Your task to perform on an android device: Open the calendar app, open the side menu, and click the "Day" option Image 0: 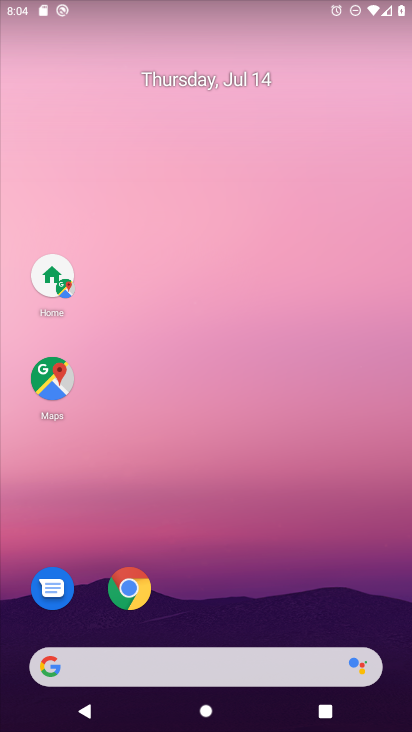
Step 0: drag from (40, 696) to (231, 80)
Your task to perform on an android device: Open the calendar app, open the side menu, and click the "Day" option Image 1: 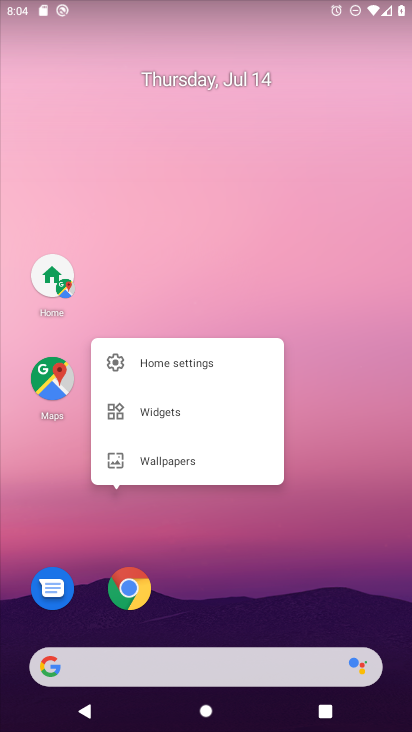
Step 1: drag from (6, 694) to (359, 56)
Your task to perform on an android device: Open the calendar app, open the side menu, and click the "Day" option Image 2: 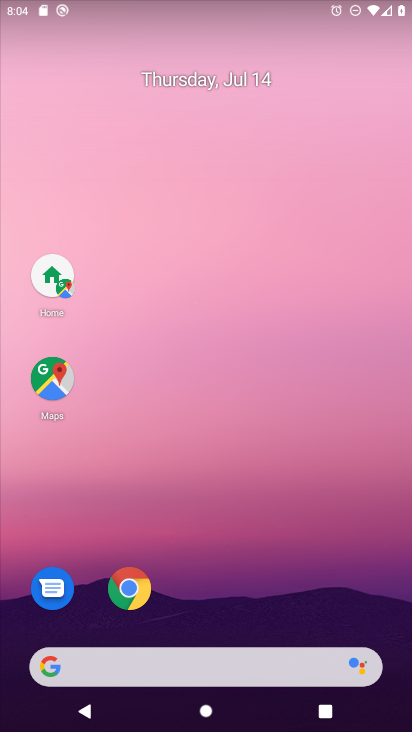
Step 2: drag from (17, 700) to (365, 7)
Your task to perform on an android device: Open the calendar app, open the side menu, and click the "Day" option Image 3: 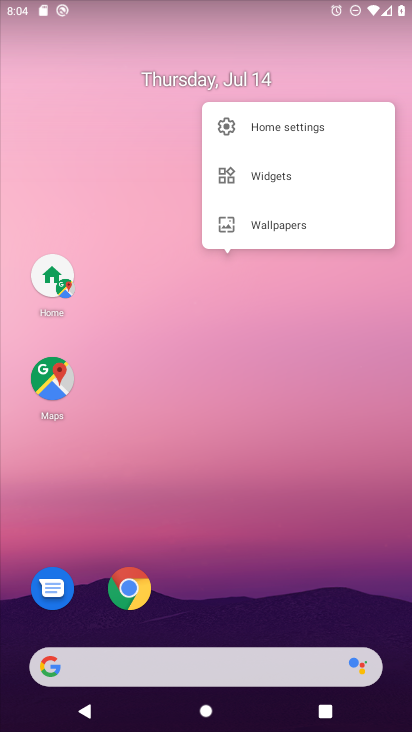
Step 3: drag from (30, 722) to (297, 94)
Your task to perform on an android device: Open the calendar app, open the side menu, and click the "Day" option Image 4: 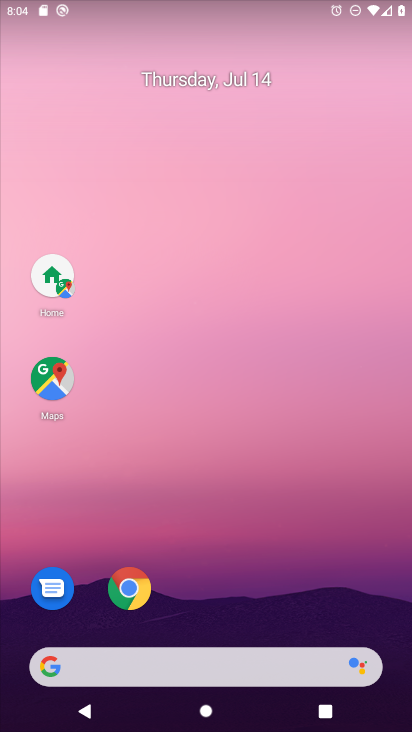
Step 4: drag from (44, 668) to (150, 176)
Your task to perform on an android device: Open the calendar app, open the side menu, and click the "Day" option Image 5: 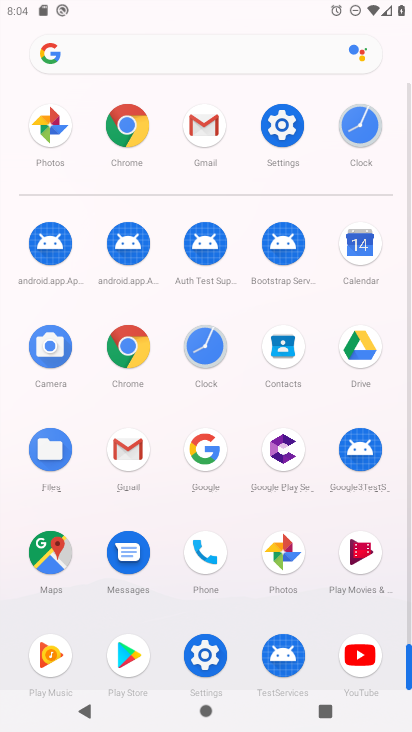
Step 5: click (373, 258)
Your task to perform on an android device: Open the calendar app, open the side menu, and click the "Day" option Image 6: 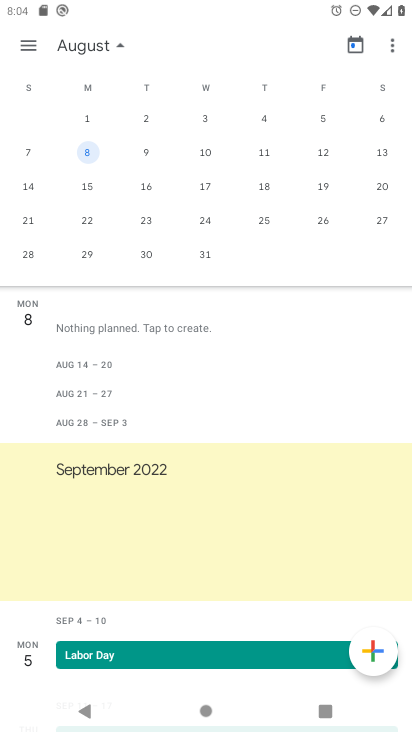
Step 6: click (262, 94)
Your task to perform on an android device: Open the calendar app, open the side menu, and click the "Day" option Image 7: 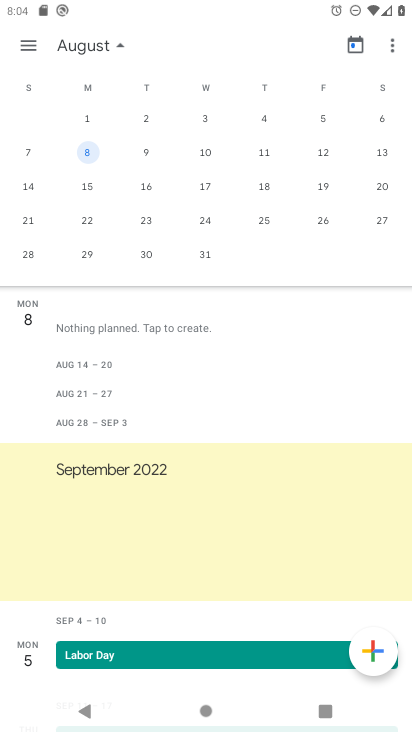
Step 7: drag from (4, 139) to (321, 130)
Your task to perform on an android device: Open the calendar app, open the side menu, and click the "Day" option Image 8: 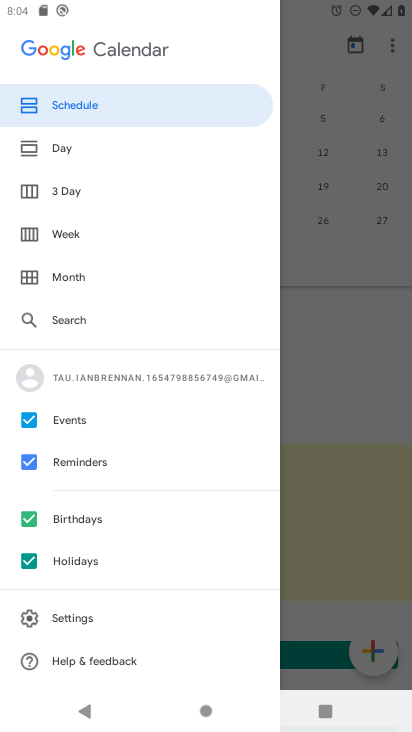
Step 8: click (332, 289)
Your task to perform on an android device: Open the calendar app, open the side menu, and click the "Day" option Image 9: 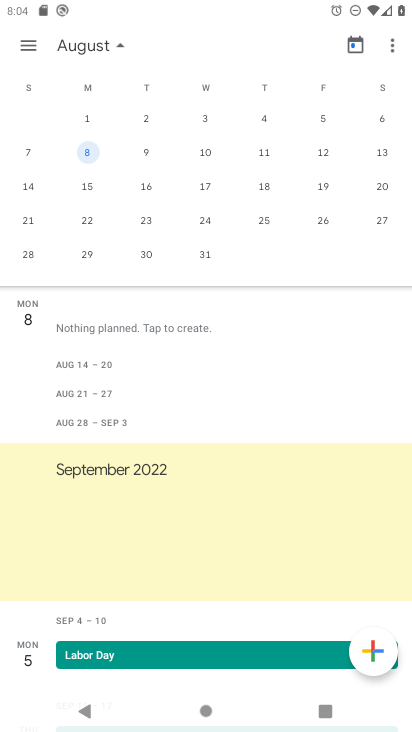
Step 9: drag from (14, 129) to (405, 139)
Your task to perform on an android device: Open the calendar app, open the side menu, and click the "Day" option Image 10: 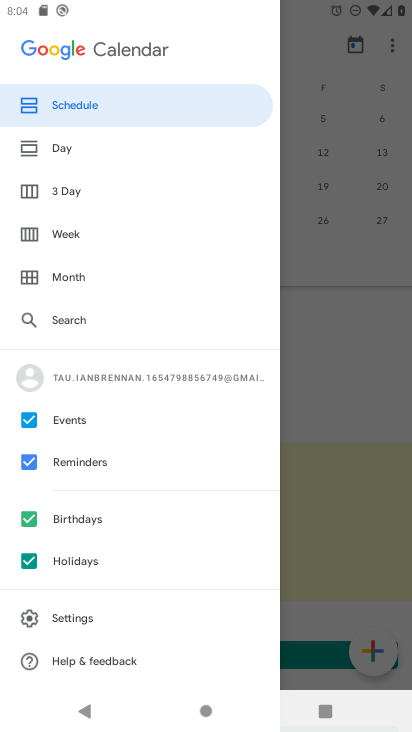
Step 10: click (365, 230)
Your task to perform on an android device: Open the calendar app, open the side menu, and click the "Day" option Image 11: 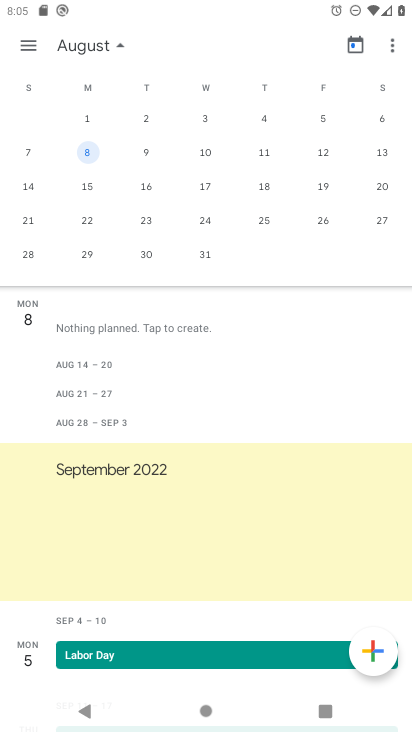
Step 11: click (23, 47)
Your task to perform on an android device: Open the calendar app, open the side menu, and click the "Day" option Image 12: 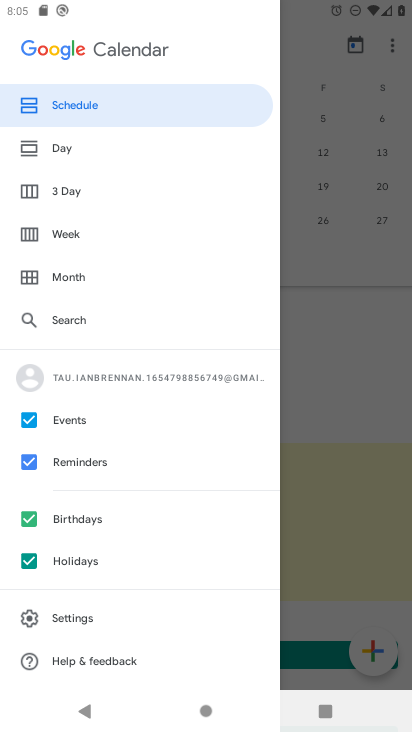
Step 12: click (60, 140)
Your task to perform on an android device: Open the calendar app, open the side menu, and click the "Day" option Image 13: 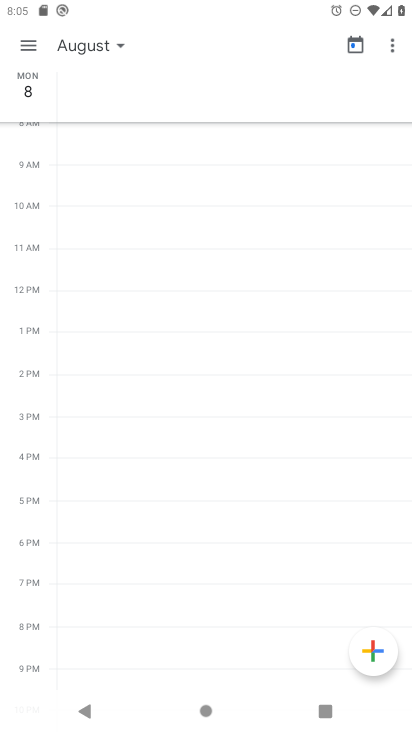
Step 13: task complete